Your task to perform on an android device: allow cookies in the chrome app Image 0: 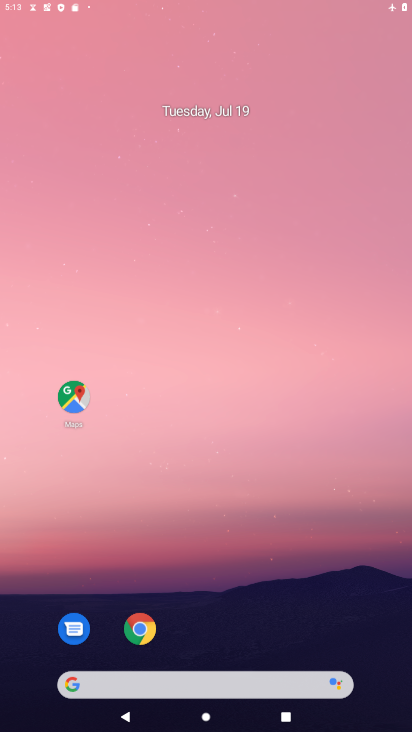
Step 0: press home button
Your task to perform on an android device: allow cookies in the chrome app Image 1: 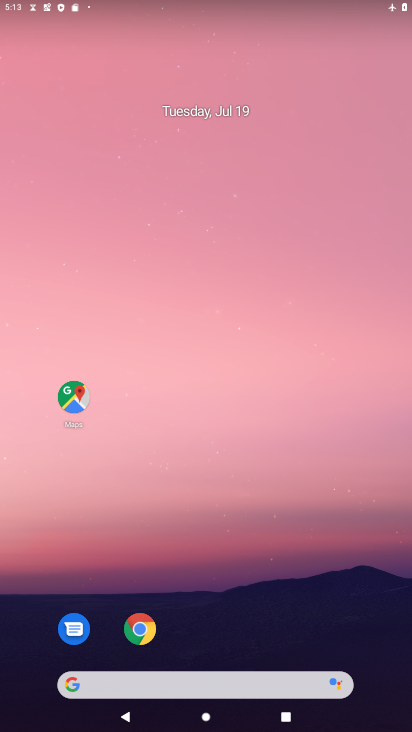
Step 1: drag from (238, 642) to (179, 50)
Your task to perform on an android device: allow cookies in the chrome app Image 2: 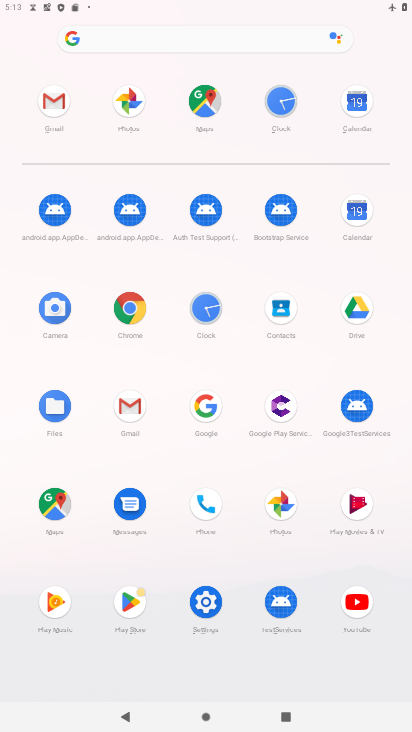
Step 2: click (124, 315)
Your task to perform on an android device: allow cookies in the chrome app Image 3: 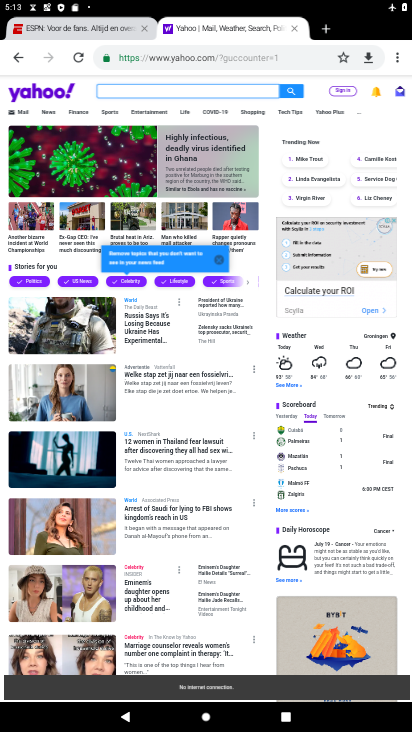
Step 3: drag from (402, 58) to (274, 390)
Your task to perform on an android device: allow cookies in the chrome app Image 4: 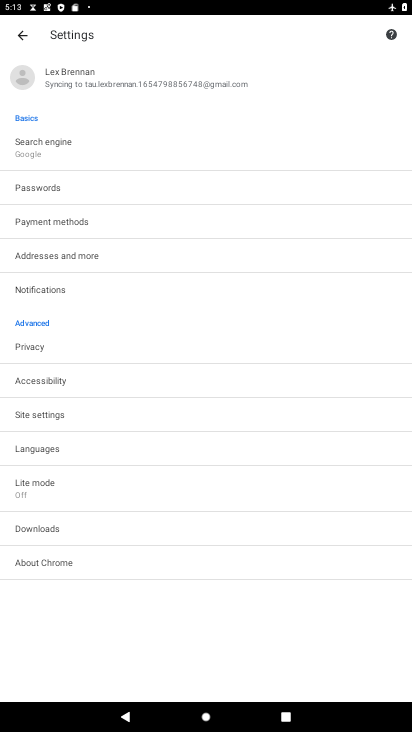
Step 4: click (41, 412)
Your task to perform on an android device: allow cookies in the chrome app Image 5: 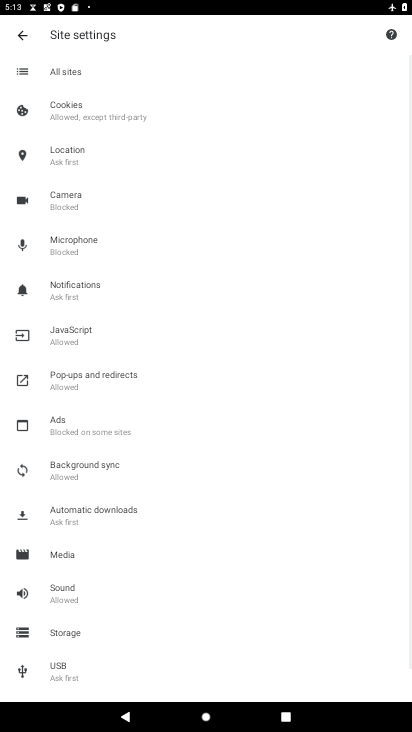
Step 5: click (53, 110)
Your task to perform on an android device: allow cookies in the chrome app Image 6: 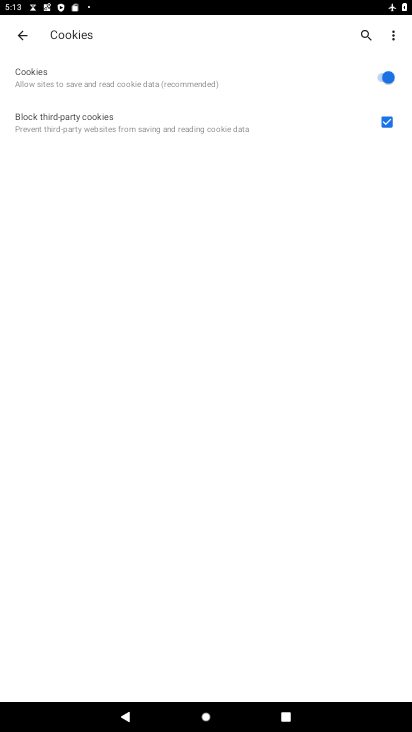
Step 6: task complete